Your task to perform on an android device: turn on javascript in the chrome app Image 0: 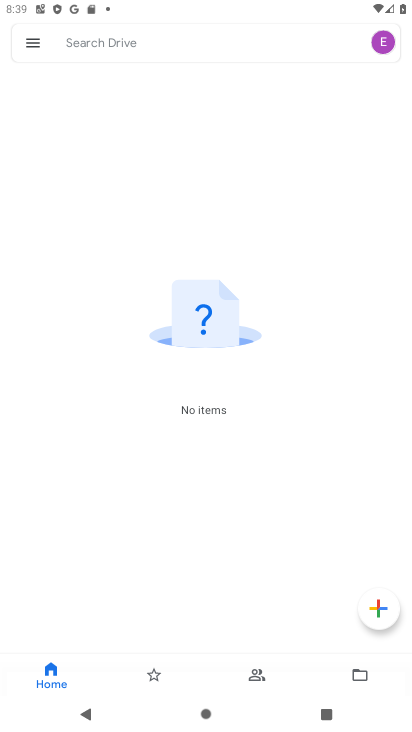
Step 0: press home button
Your task to perform on an android device: turn on javascript in the chrome app Image 1: 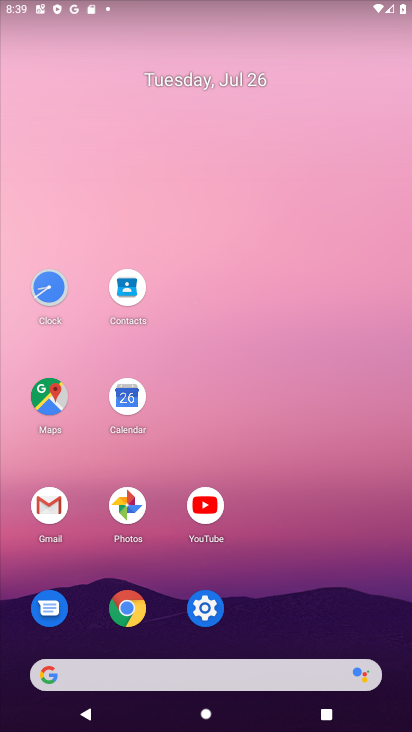
Step 1: click (127, 611)
Your task to perform on an android device: turn on javascript in the chrome app Image 2: 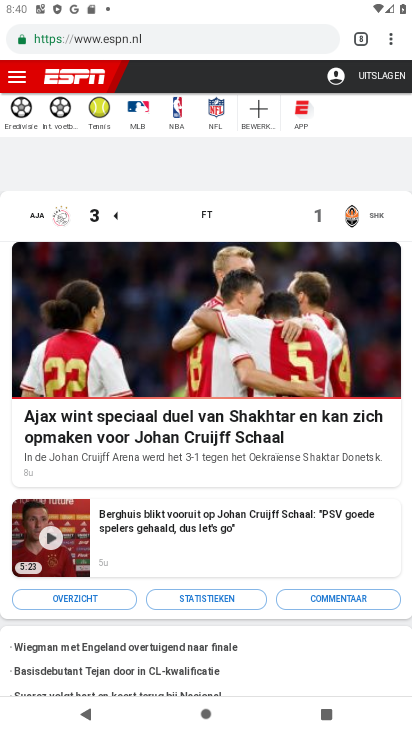
Step 2: click (392, 38)
Your task to perform on an android device: turn on javascript in the chrome app Image 3: 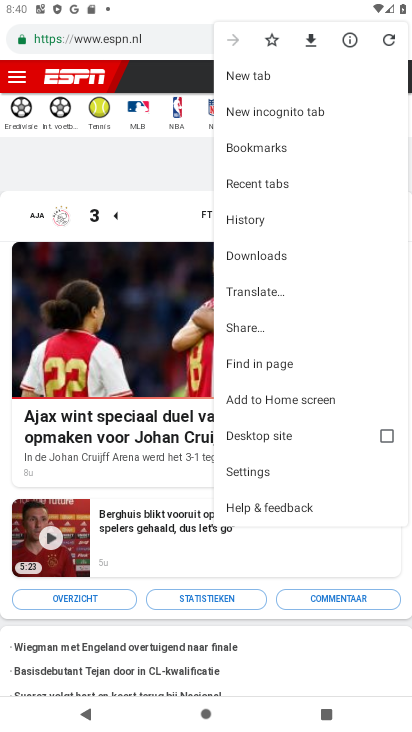
Step 3: click (254, 470)
Your task to perform on an android device: turn on javascript in the chrome app Image 4: 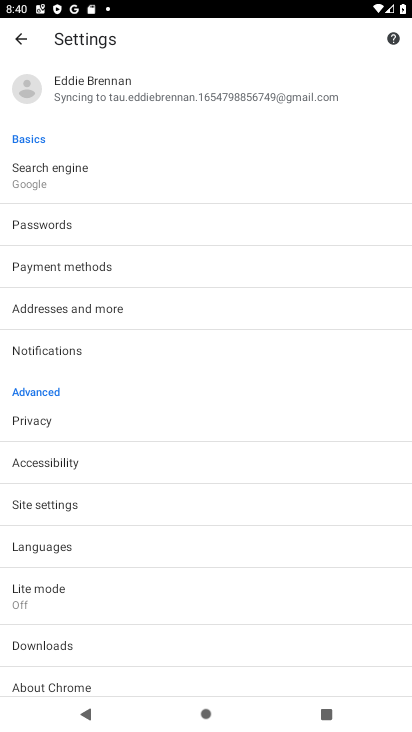
Step 4: click (52, 507)
Your task to perform on an android device: turn on javascript in the chrome app Image 5: 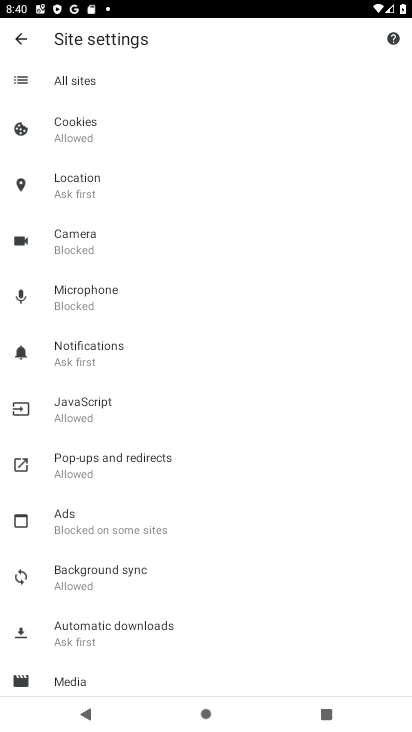
Step 5: click (80, 404)
Your task to perform on an android device: turn on javascript in the chrome app Image 6: 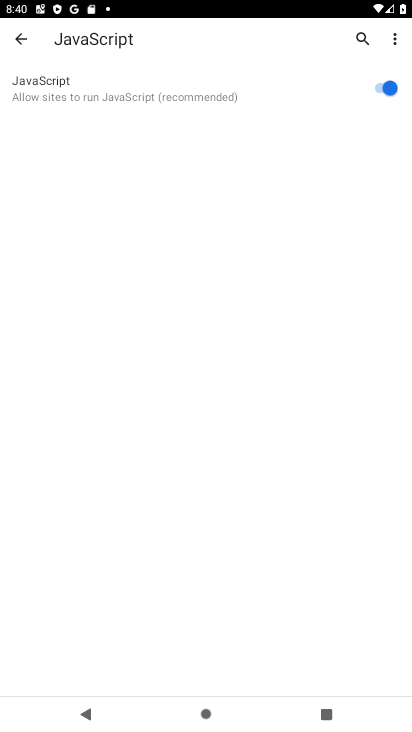
Step 6: task complete